Your task to perform on an android device: turn on the 12-hour format for clock Image 0: 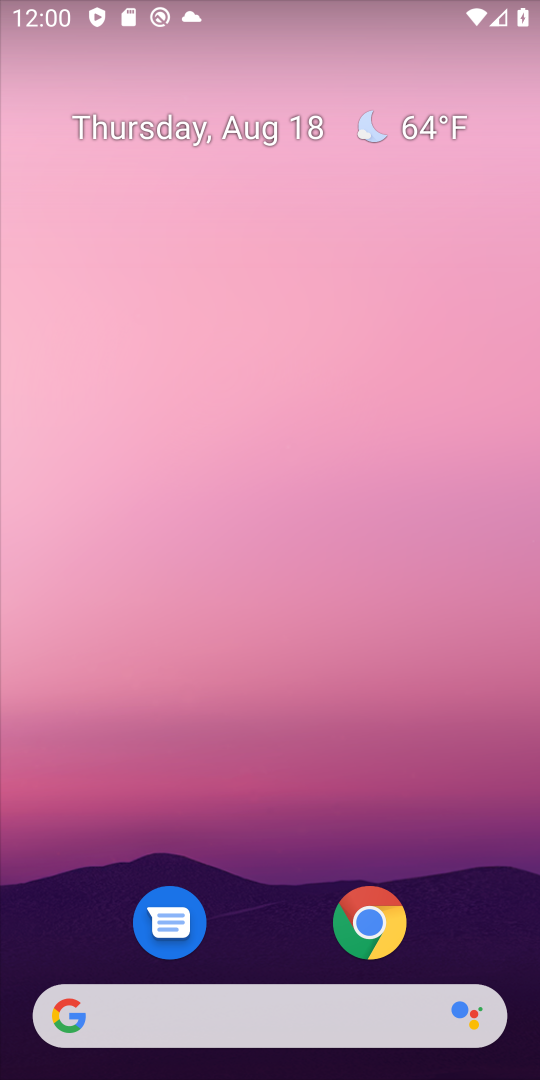
Step 0: click (272, 862)
Your task to perform on an android device: turn on the 12-hour format for clock Image 1: 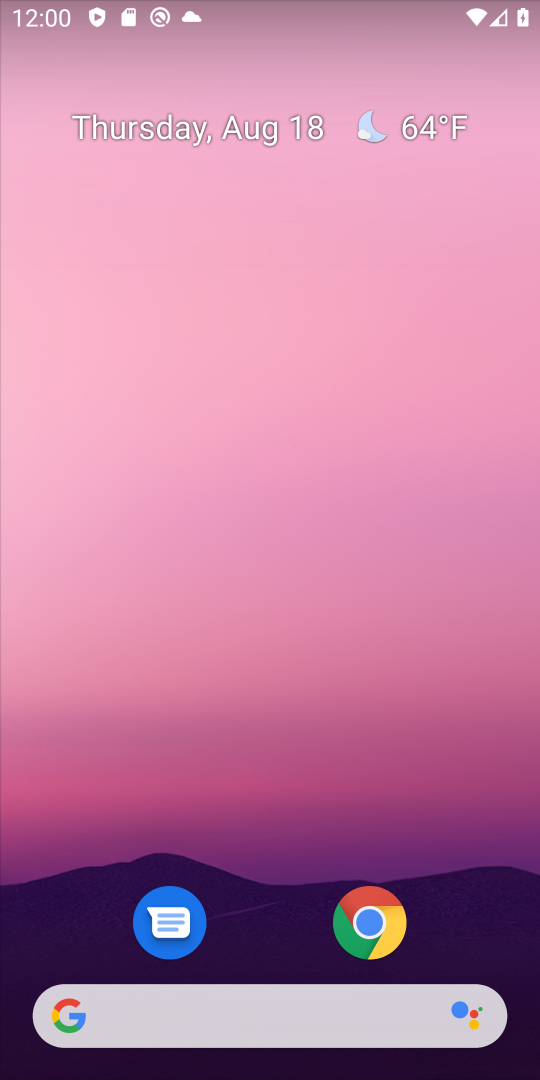
Step 1: drag from (272, 862) to (135, 137)
Your task to perform on an android device: turn on the 12-hour format for clock Image 2: 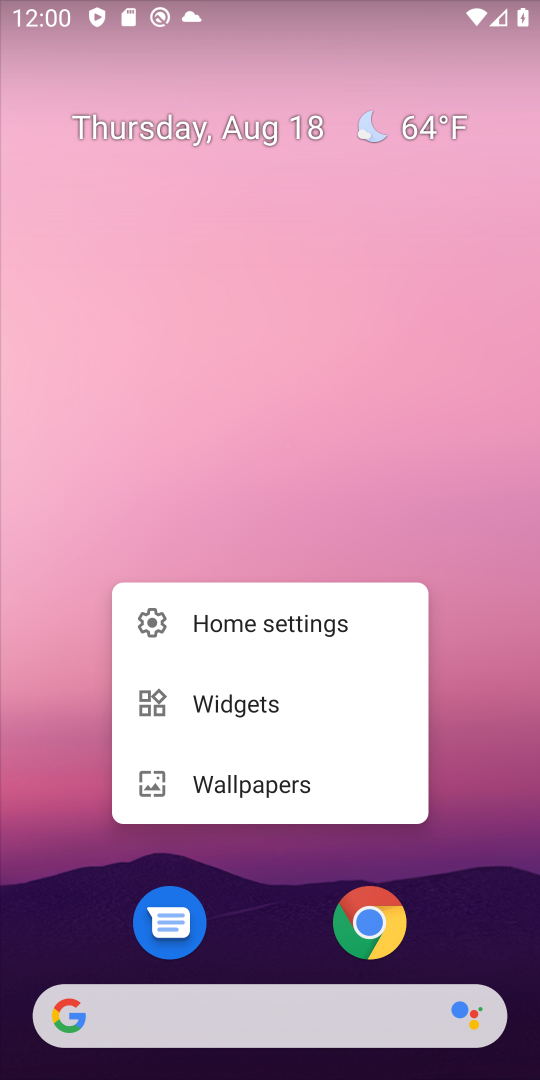
Step 2: click (273, 439)
Your task to perform on an android device: turn on the 12-hour format for clock Image 3: 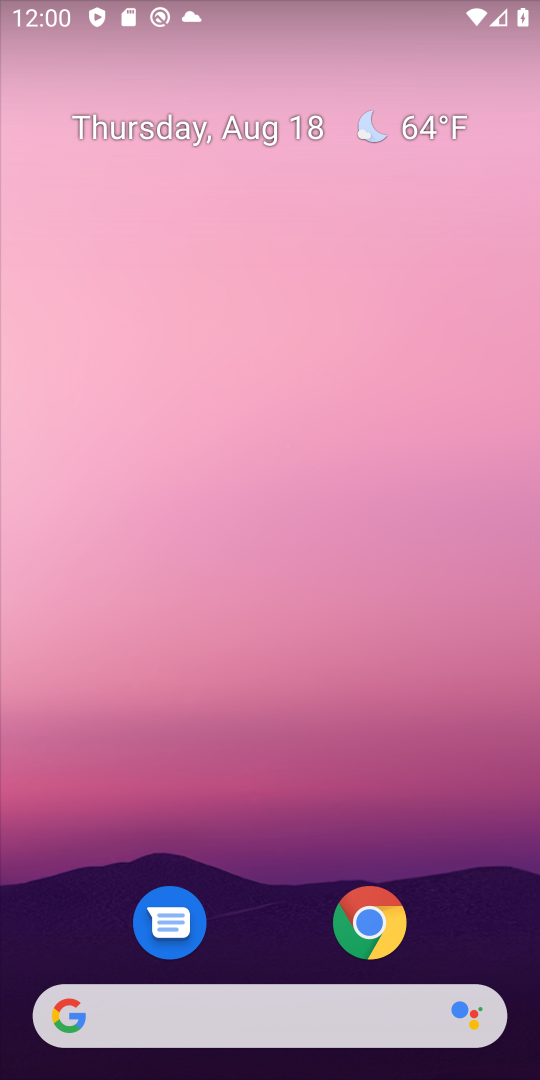
Step 3: drag from (270, 844) to (324, 342)
Your task to perform on an android device: turn on the 12-hour format for clock Image 4: 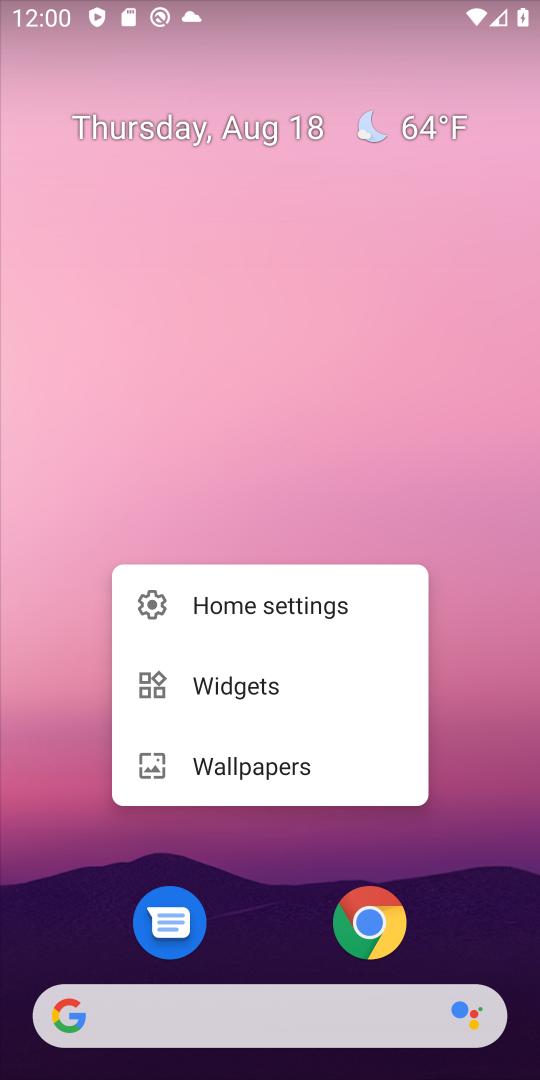
Step 4: click (324, 342)
Your task to perform on an android device: turn on the 12-hour format for clock Image 5: 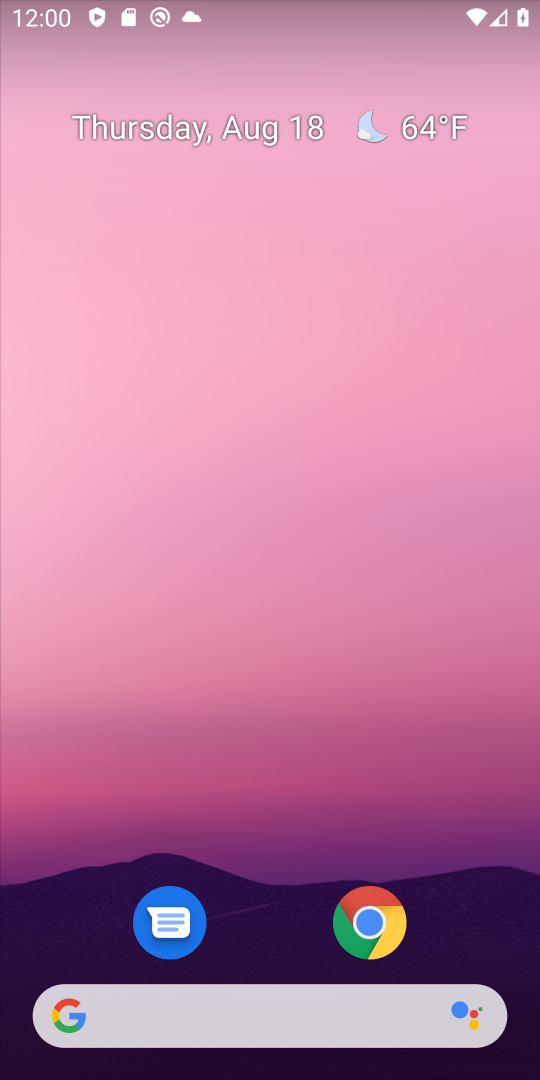
Step 5: drag from (261, 943) to (291, 321)
Your task to perform on an android device: turn on the 12-hour format for clock Image 6: 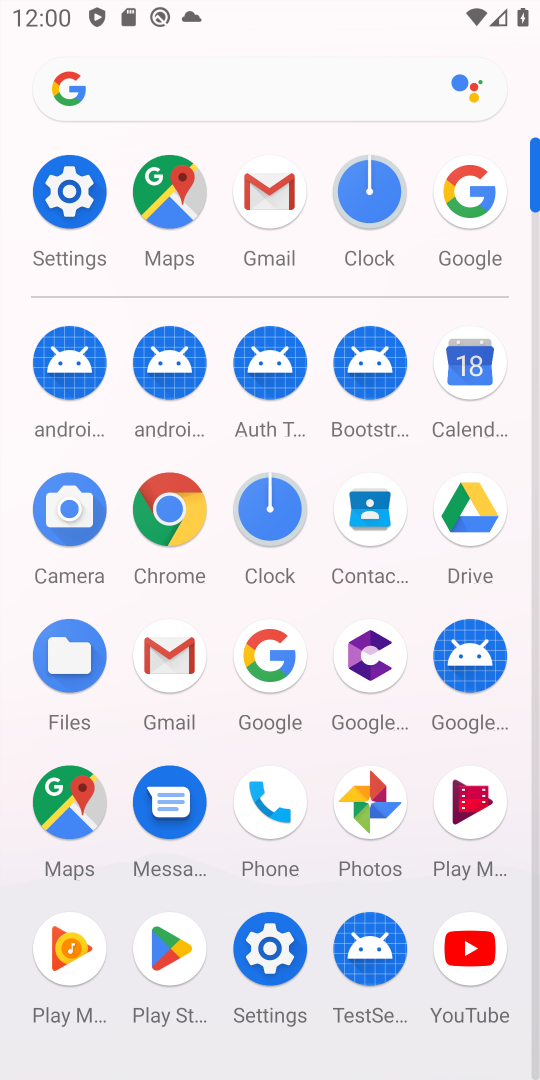
Step 6: click (386, 195)
Your task to perform on an android device: turn on the 12-hour format for clock Image 7: 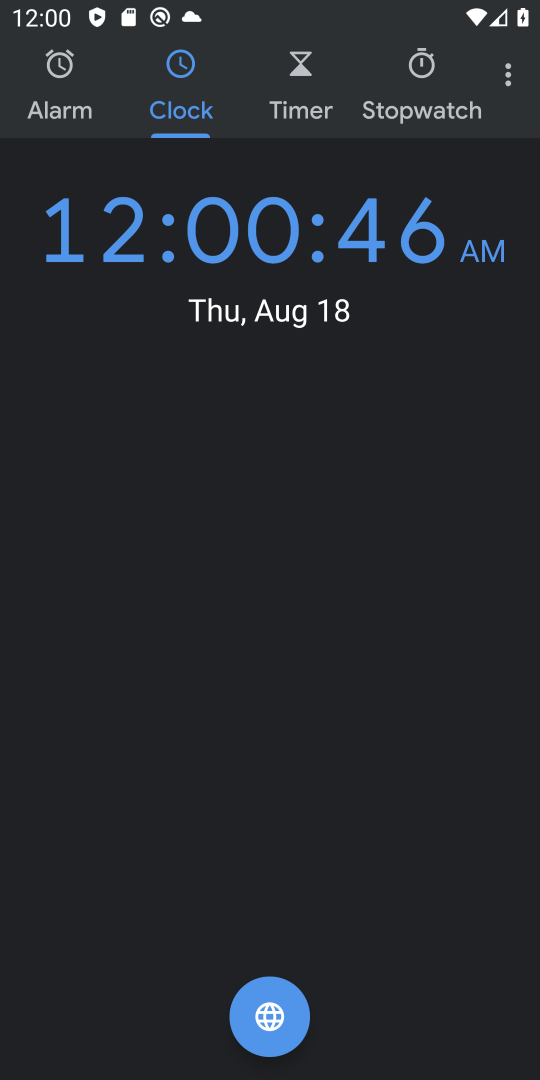
Step 7: click (513, 68)
Your task to perform on an android device: turn on the 12-hour format for clock Image 8: 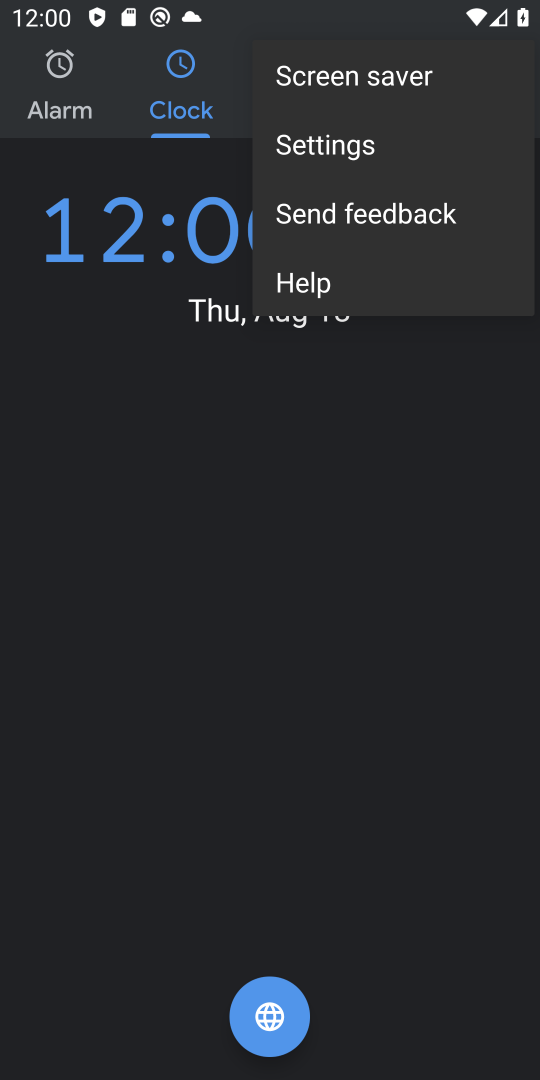
Step 8: click (380, 141)
Your task to perform on an android device: turn on the 12-hour format for clock Image 9: 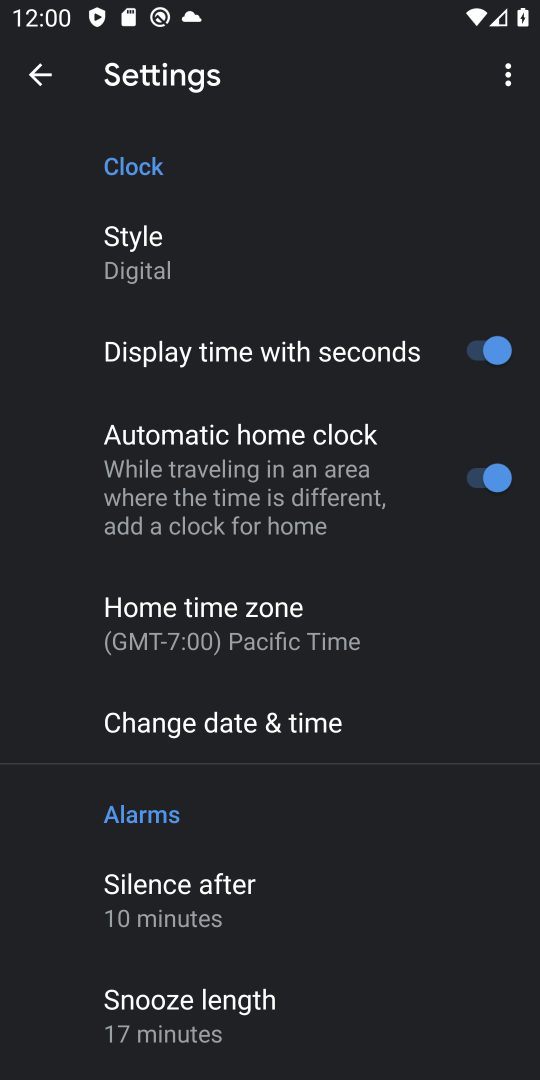
Step 9: click (231, 732)
Your task to perform on an android device: turn on the 12-hour format for clock Image 10: 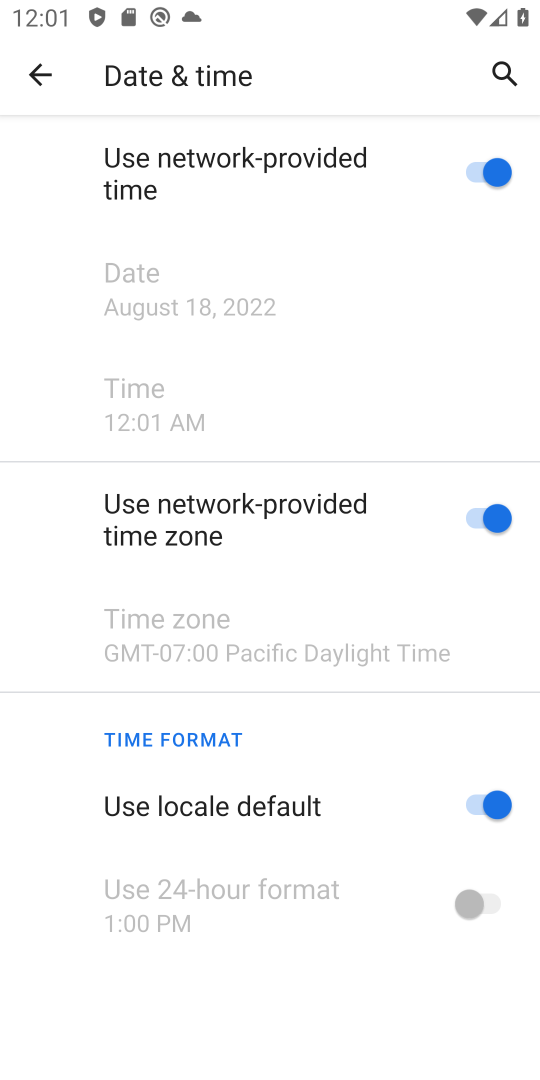
Step 10: task complete